Your task to perform on an android device: set the stopwatch Image 0: 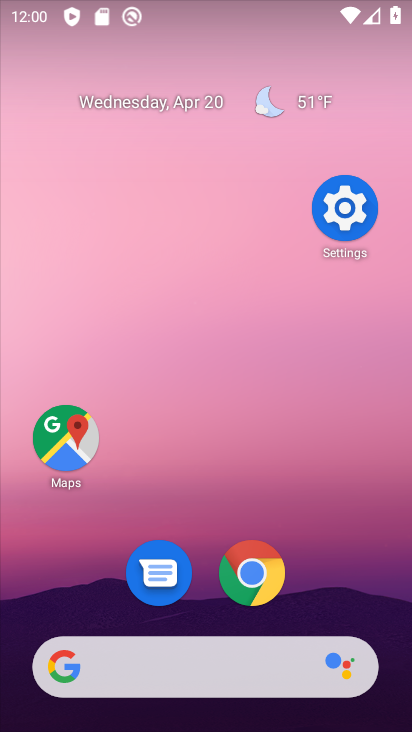
Step 0: drag from (319, 525) to (273, 183)
Your task to perform on an android device: set the stopwatch Image 1: 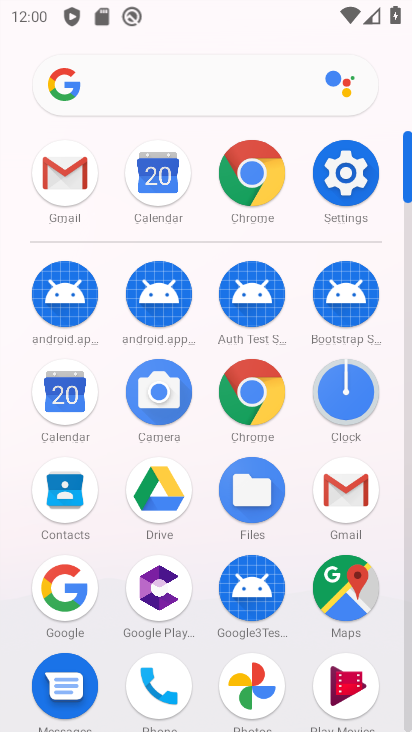
Step 1: click (346, 393)
Your task to perform on an android device: set the stopwatch Image 2: 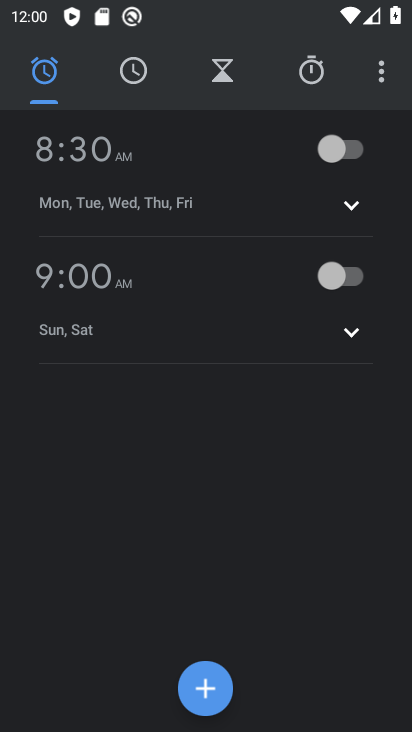
Step 2: click (303, 88)
Your task to perform on an android device: set the stopwatch Image 3: 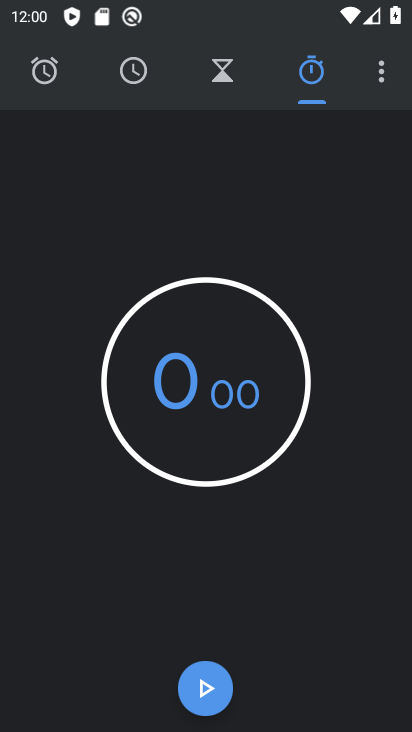
Step 3: click (203, 686)
Your task to perform on an android device: set the stopwatch Image 4: 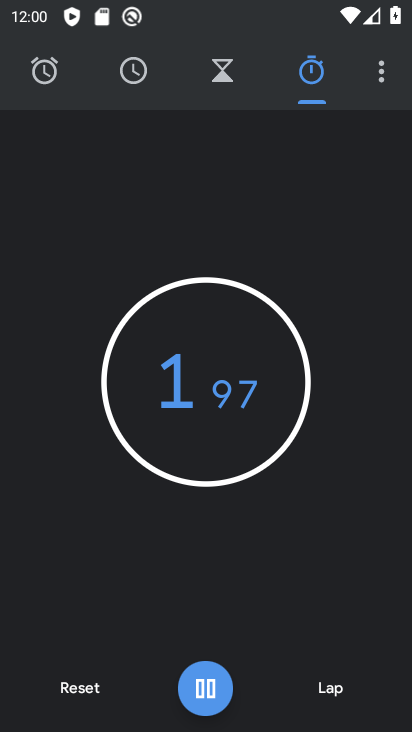
Step 4: task complete